Your task to perform on an android device: open a new tab in the chrome app Image 0: 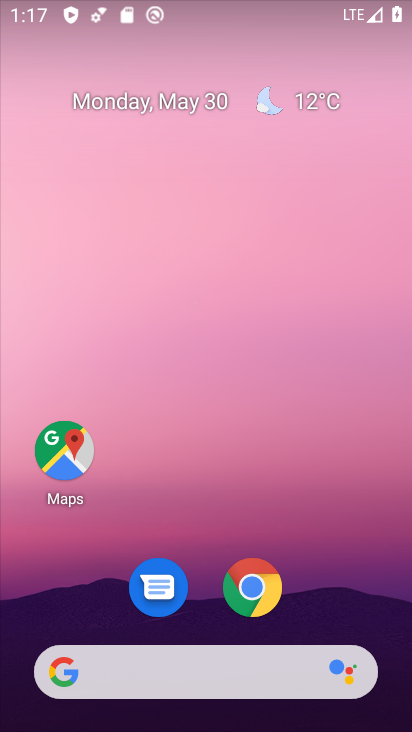
Step 0: click (275, 594)
Your task to perform on an android device: open a new tab in the chrome app Image 1: 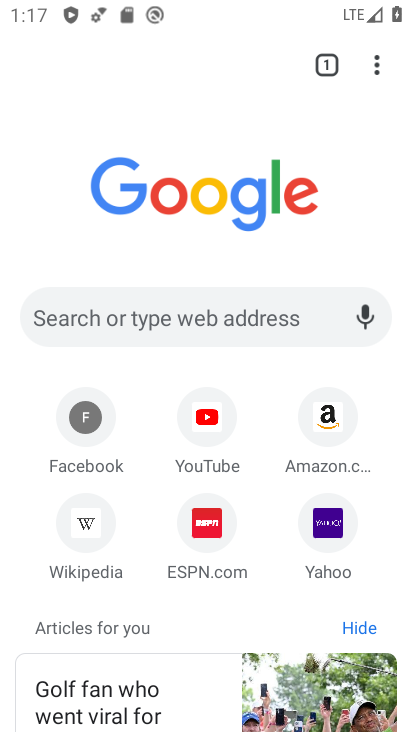
Step 1: click (374, 65)
Your task to perform on an android device: open a new tab in the chrome app Image 2: 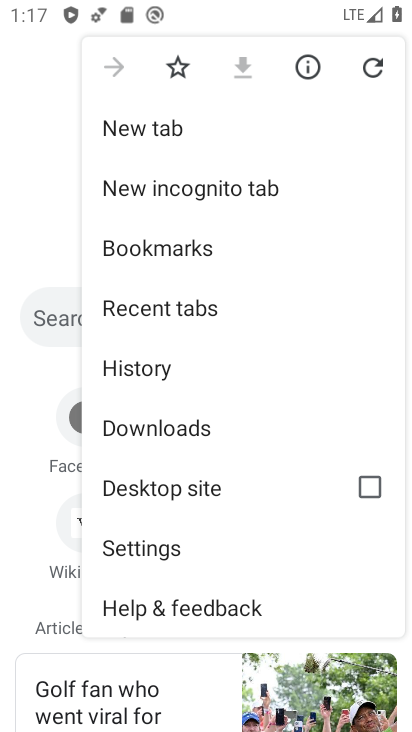
Step 2: click (178, 130)
Your task to perform on an android device: open a new tab in the chrome app Image 3: 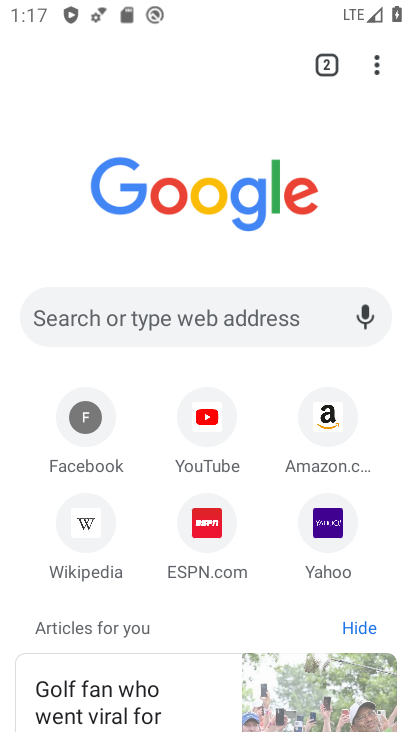
Step 3: task complete